Your task to perform on an android device: turn off location Image 0: 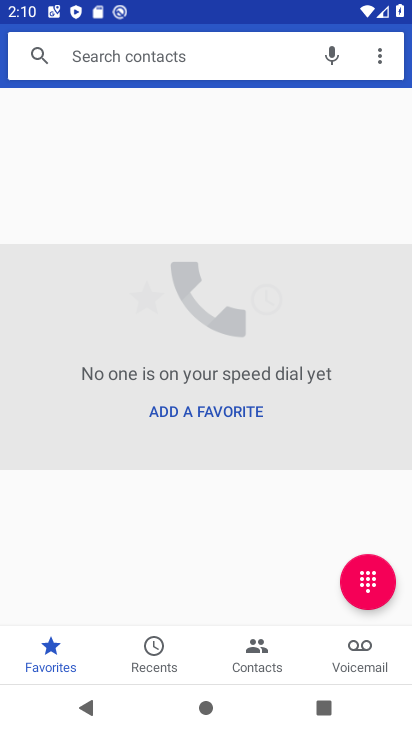
Step 0: press home button
Your task to perform on an android device: turn off location Image 1: 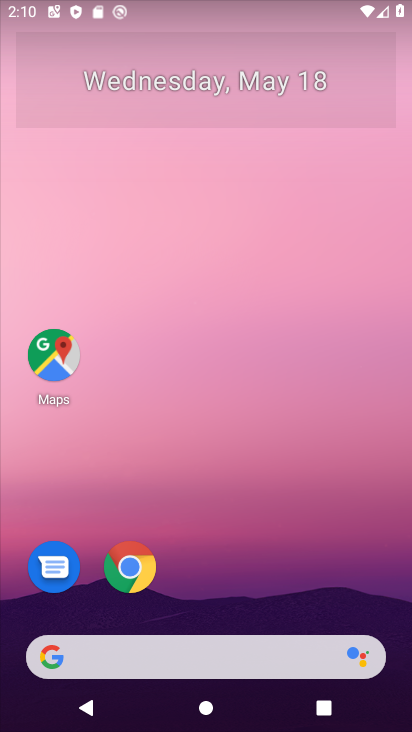
Step 1: drag from (302, 577) to (302, 101)
Your task to perform on an android device: turn off location Image 2: 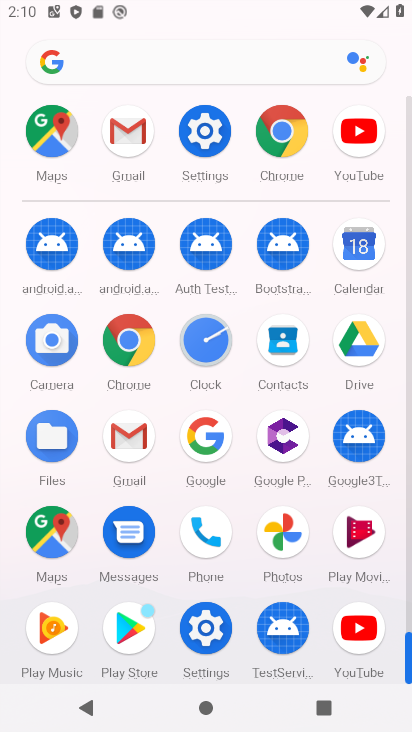
Step 2: click (221, 138)
Your task to perform on an android device: turn off location Image 3: 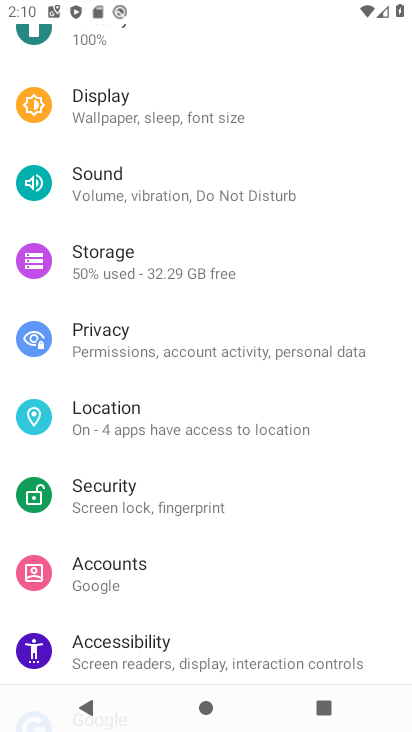
Step 3: click (216, 424)
Your task to perform on an android device: turn off location Image 4: 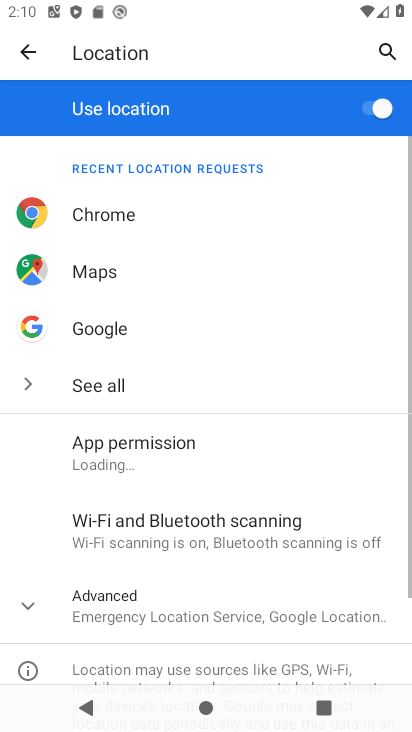
Step 4: click (362, 110)
Your task to perform on an android device: turn off location Image 5: 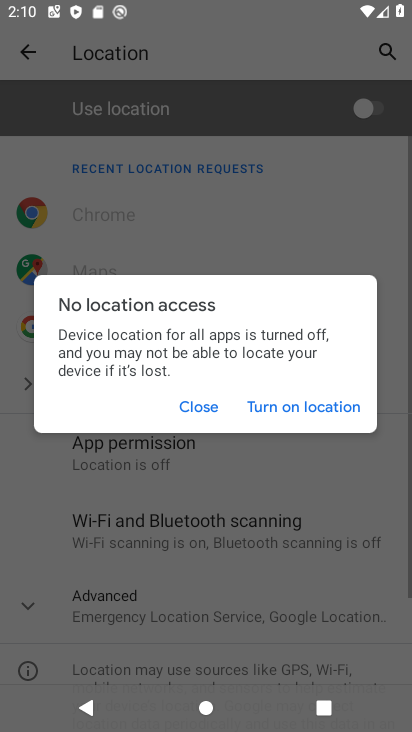
Step 5: task complete